Your task to perform on an android device: turn on translation in the chrome app Image 0: 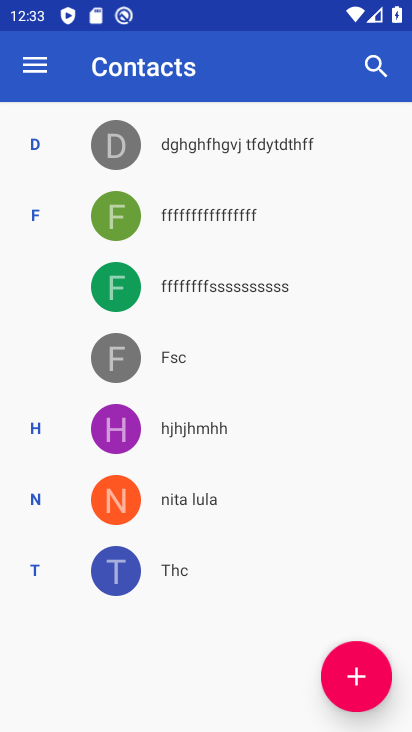
Step 0: press home button
Your task to perform on an android device: turn on translation in the chrome app Image 1: 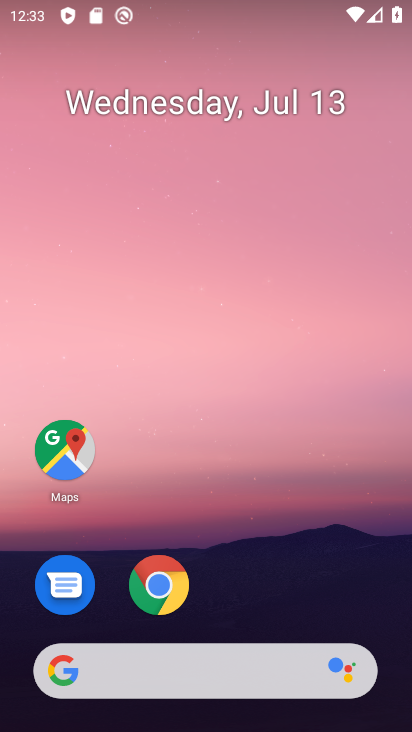
Step 1: click (169, 587)
Your task to perform on an android device: turn on translation in the chrome app Image 2: 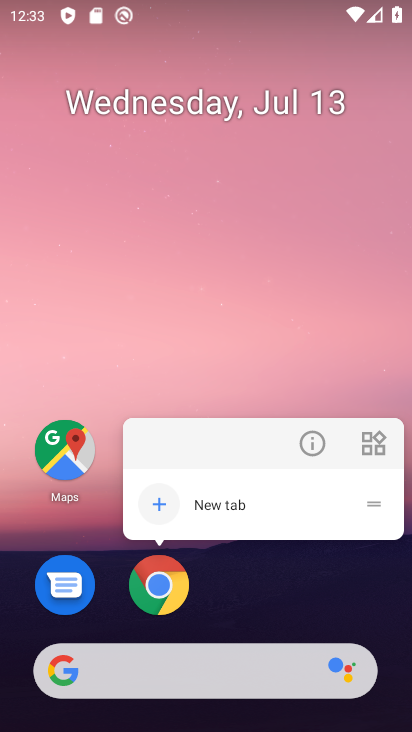
Step 2: click (161, 591)
Your task to perform on an android device: turn on translation in the chrome app Image 3: 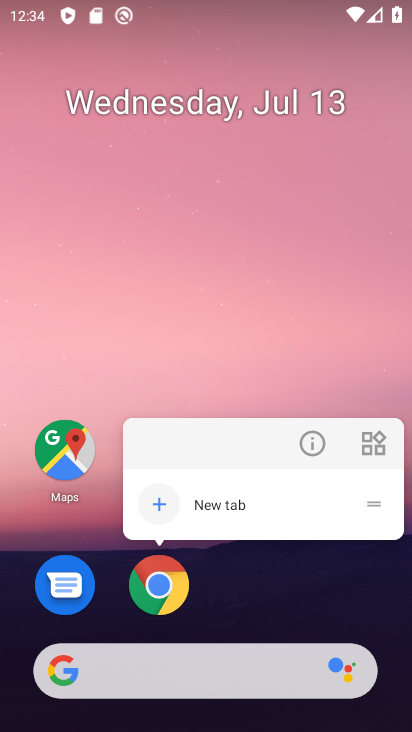
Step 3: click (162, 591)
Your task to perform on an android device: turn on translation in the chrome app Image 4: 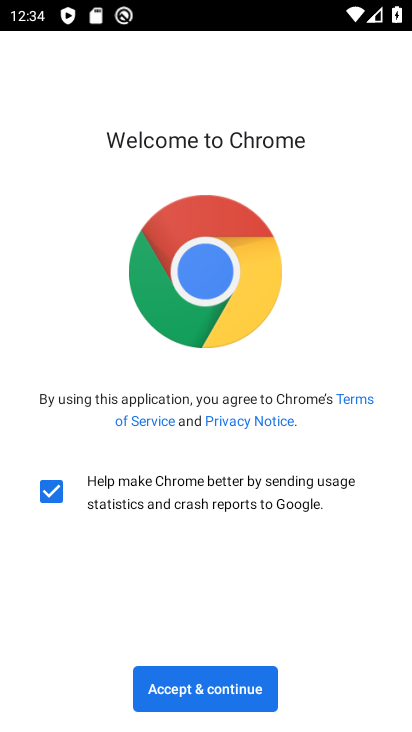
Step 4: click (220, 676)
Your task to perform on an android device: turn on translation in the chrome app Image 5: 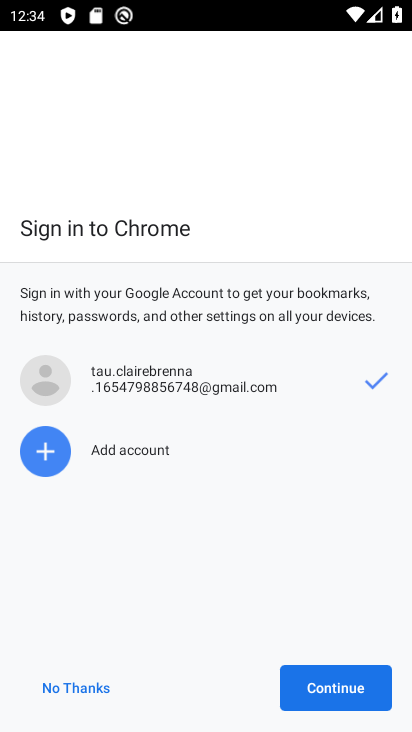
Step 5: click (359, 691)
Your task to perform on an android device: turn on translation in the chrome app Image 6: 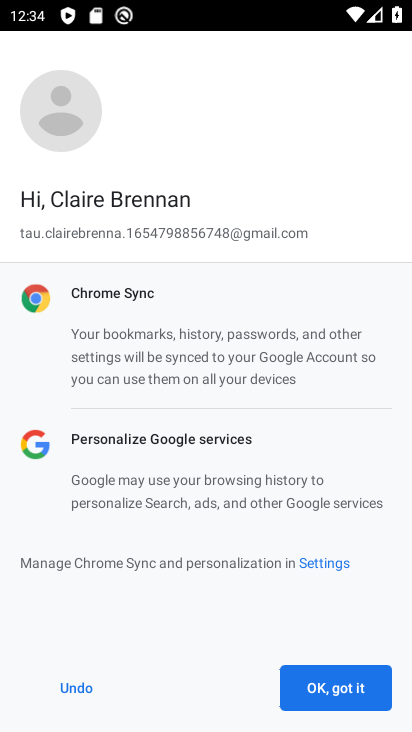
Step 6: click (359, 691)
Your task to perform on an android device: turn on translation in the chrome app Image 7: 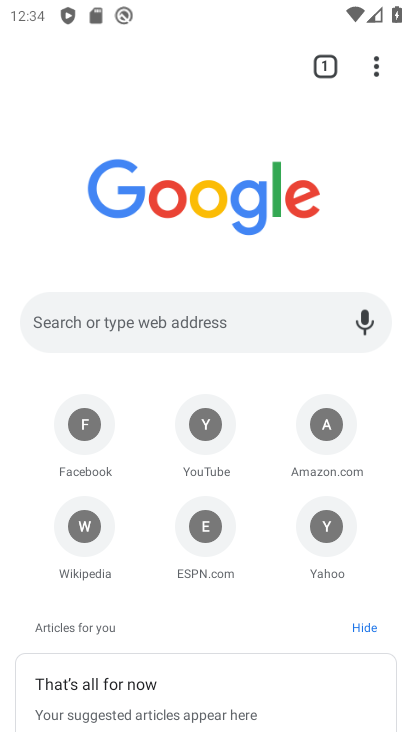
Step 7: drag from (379, 64) to (172, 557)
Your task to perform on an android device: turn on translation in the chrome app Image 8: 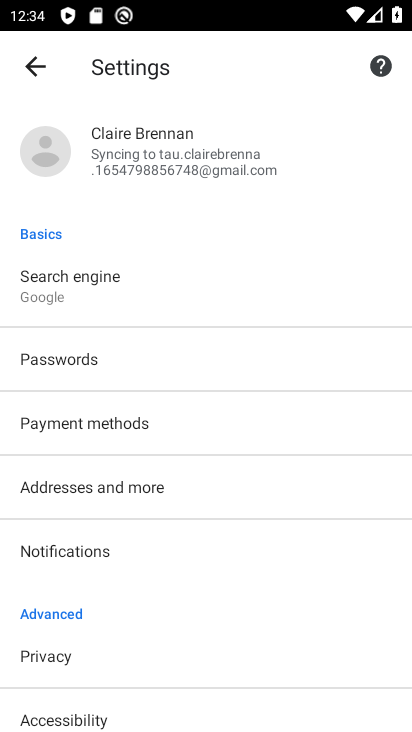
Step 8: drag from (155, 631) to (298, 69)
Your task to perform on an android device: turn on translation in the chrome app Image 9: 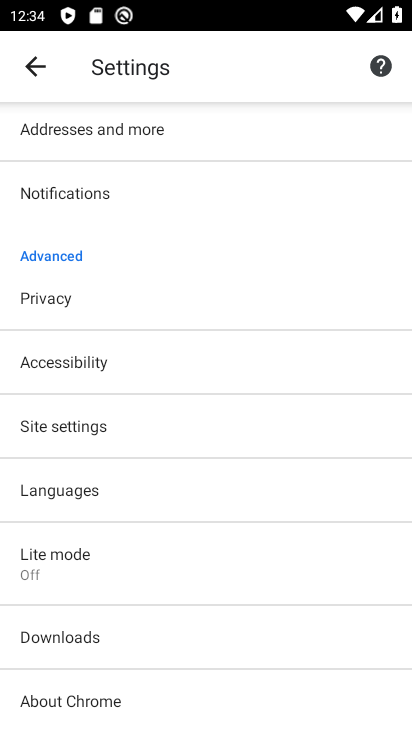
Step 9: click (104, 501)
Your task to perform on an android device: turn on translation in the chrome app Image 10: 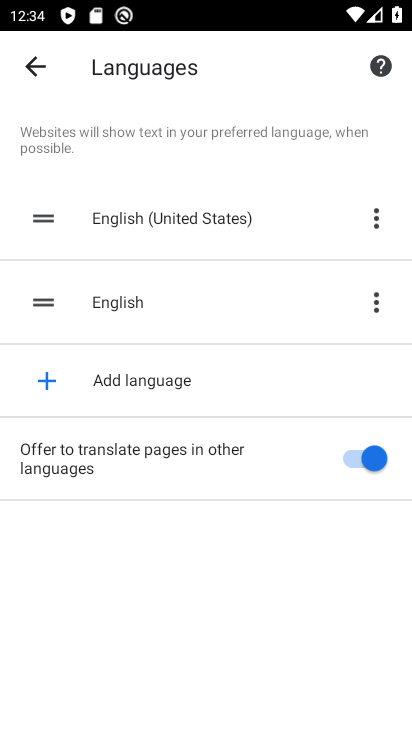
Step 10: task complete